Your task to perform on an android device: Is it going to rain today? Image 0: 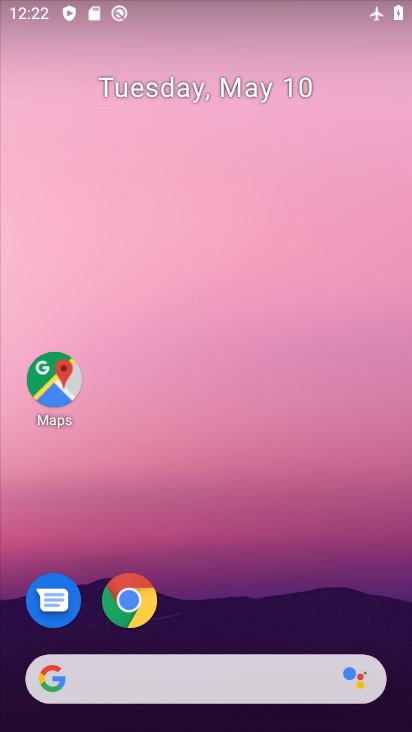
Step 0: drag from (267, 612) to (266, 104)
Your task to perform on an android device: Is it going to rain today? Image 1: 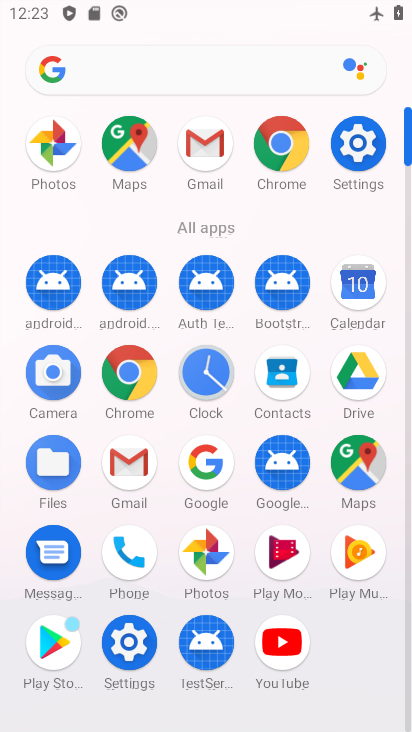
Step 1: click (350, 155)
Your task to perform on an android device: Is it going to rain today? Image 2: 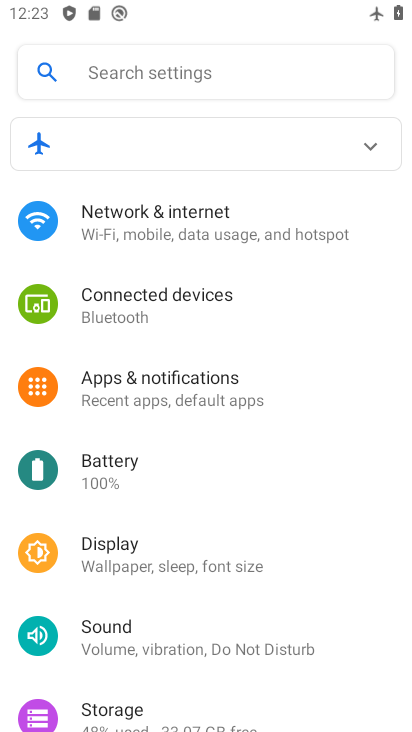
Step 2: press home button
Your task to perform on an android device: Is it going to rain today? Image 3: 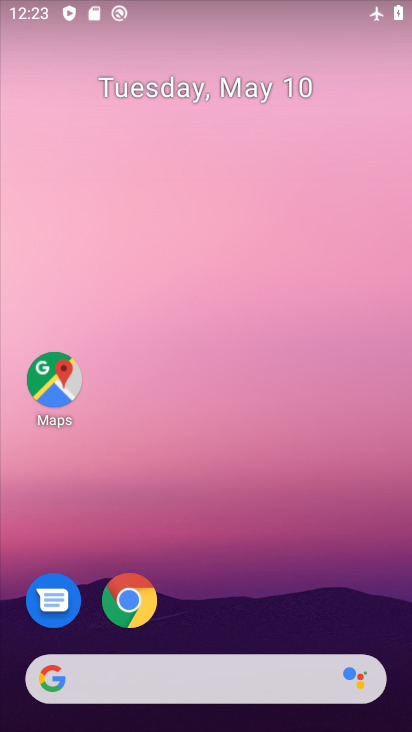
Step 3: drag from (252, 586) to (253, 212)
Your task to perform on an android device: Is it going to rain today? Image 4: 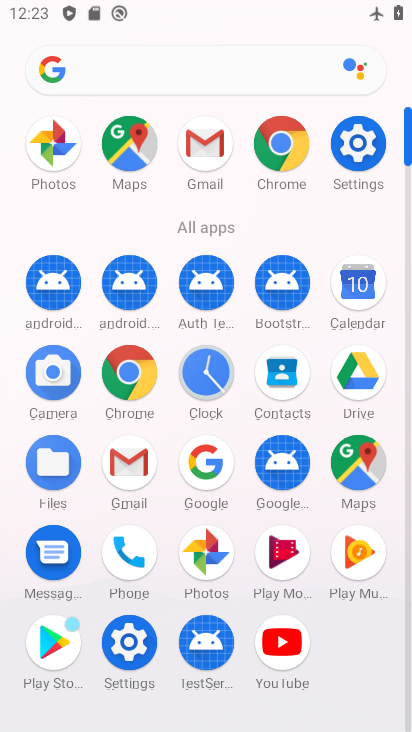
Step 4: drag from (122, 580) to (248, 331)
Your task to perform on an android device: Is it going to rain today? Image 5: 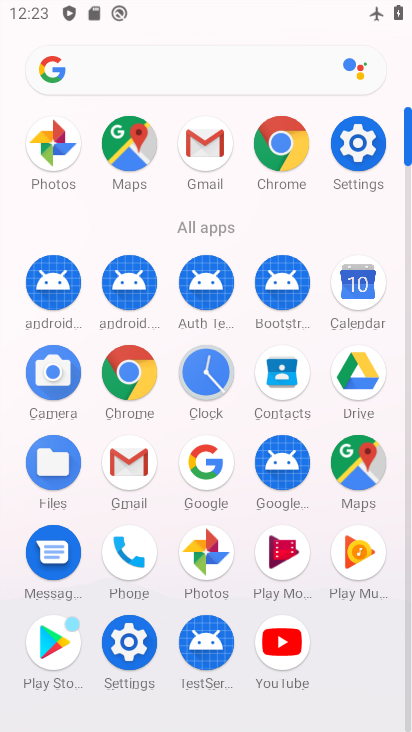
Step 5: click (207, 488)
Your task to perform on an android device: Is it going to rain today? Image 6: 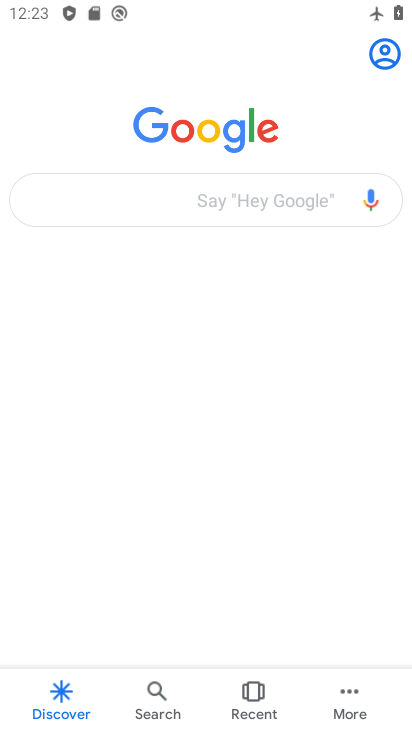
Step 6: click (191, 184)
Your task to perform on an android device: Is it going to rain today? Image 7: 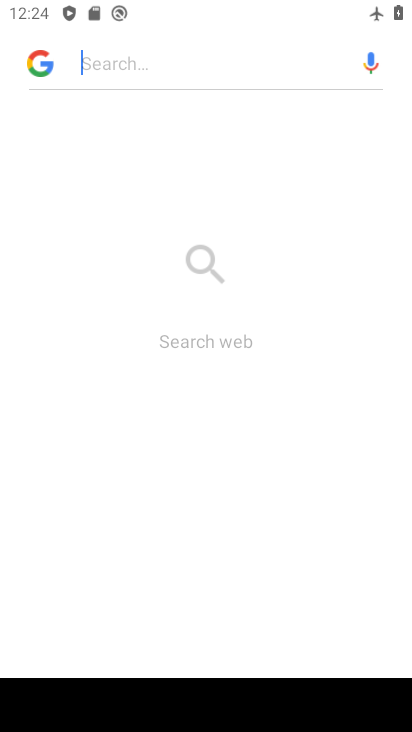
Step 7: task complete